Your task to perform on an android device: turn off location Image 0: 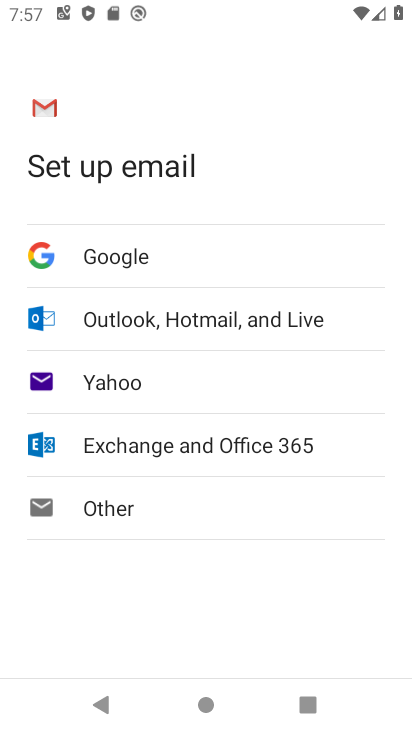
Step 0: press home button
Your task to perform on an android device: turn off location Image 1: 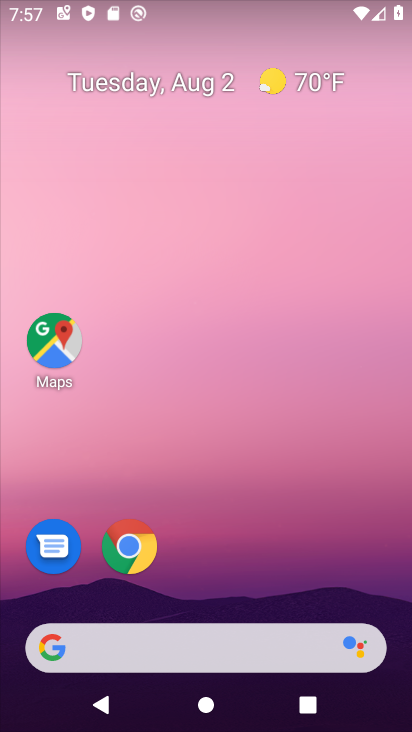
Step 1: drag from (200, 617) to (225, 37)
Your task to perform on an android device: turn off location Image 2: 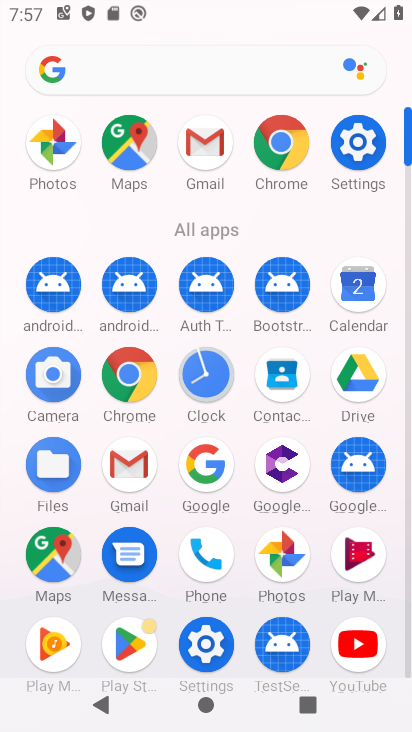
Step 2: click (205, 655)
Your task to perform on an android device: turn off location Image 3: 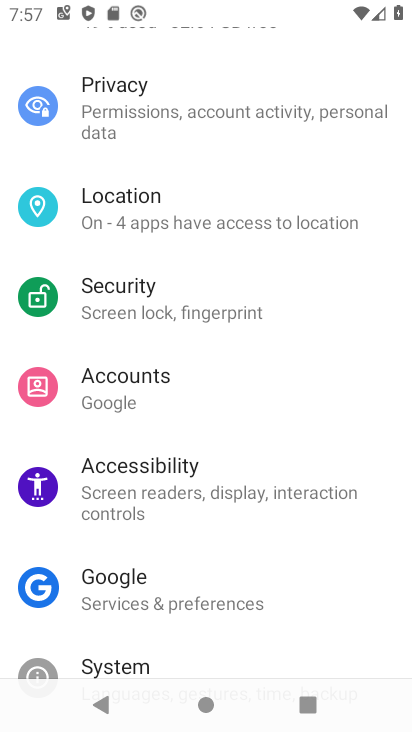
Step 3: click (158, 210)
Your task to perform on an android device: turn off location Image 4: 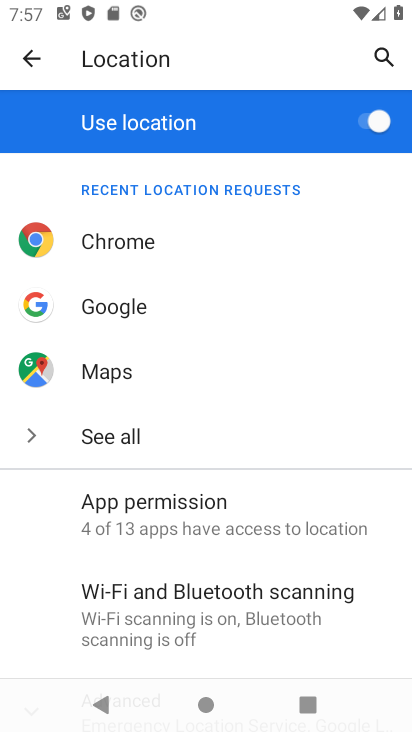
Step 4: click (343, 115)
Your task to perform on an android device: turn off location Image 5: 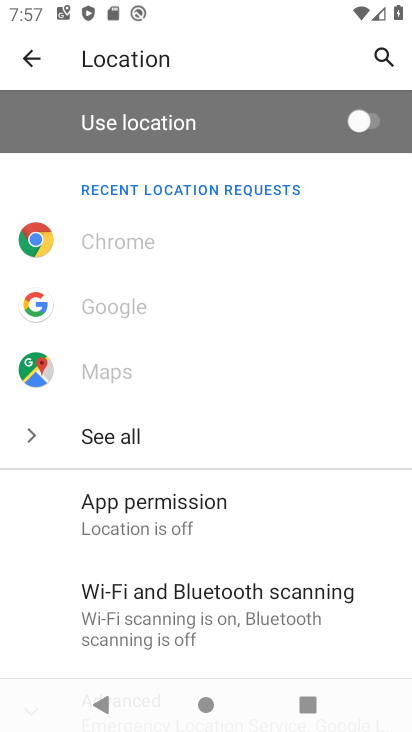
Step 5: task complete